Your task to perform on an android device: choose inbox layout in the gmail app Image 0: 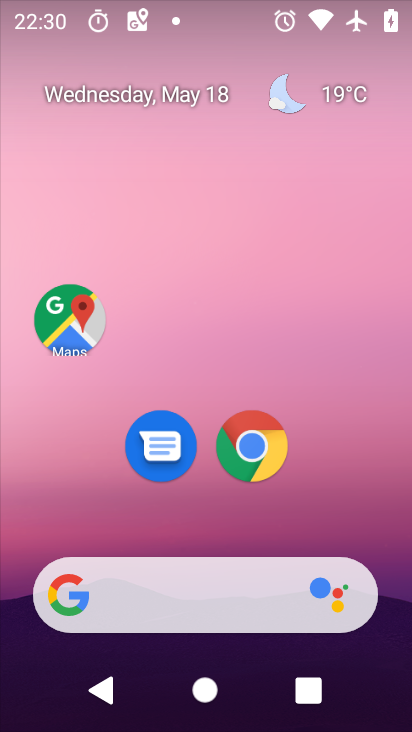
Step 0: drag from (146, 589) to (296, 78)
Your task to perform on an android device: choose inbox layout in the gmail app Image 1: 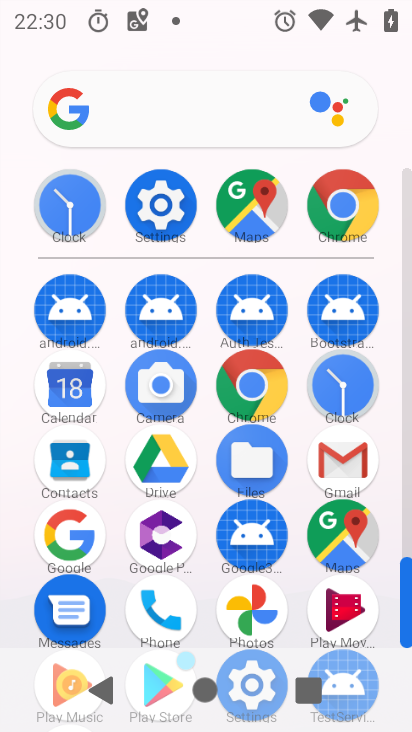
Step 1: click (335, 463)
Your task to perform on an android device: choose inbox layout in the gmail app Image 2: 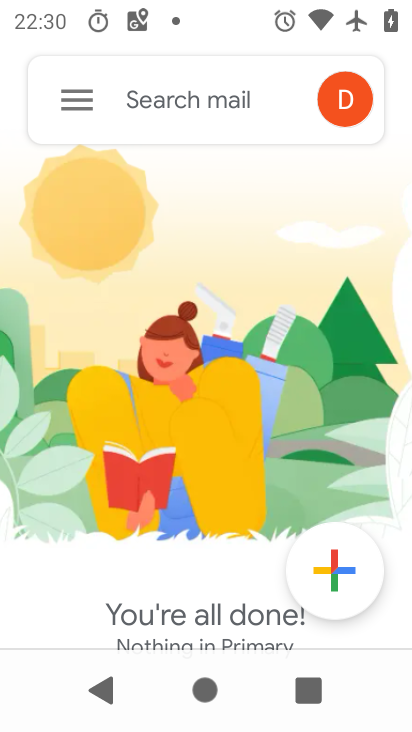
Step 2: click (72, 103)
Your task to perform on an android device: choose inbox layout in the gmail app Image 3: 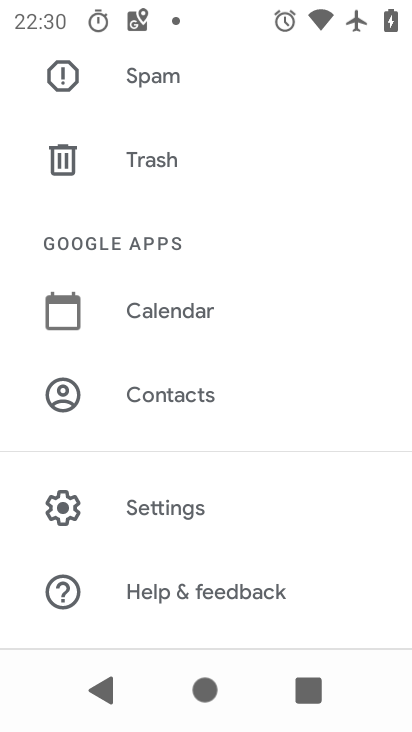
Step 3: click (186, 512)
Your task to perform on an android device: choose inbox layout in the gmail app Image 4: 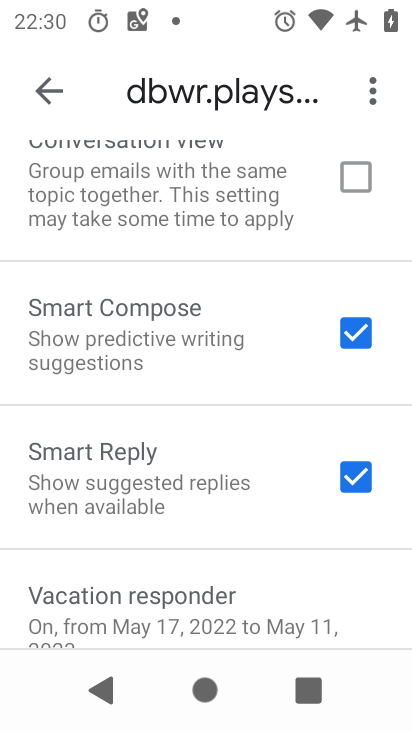
Step 4: drag from (255, 148) to (216, 609)
Your task to perform on an android device: choose inbox layout in the gmail app Image 5: 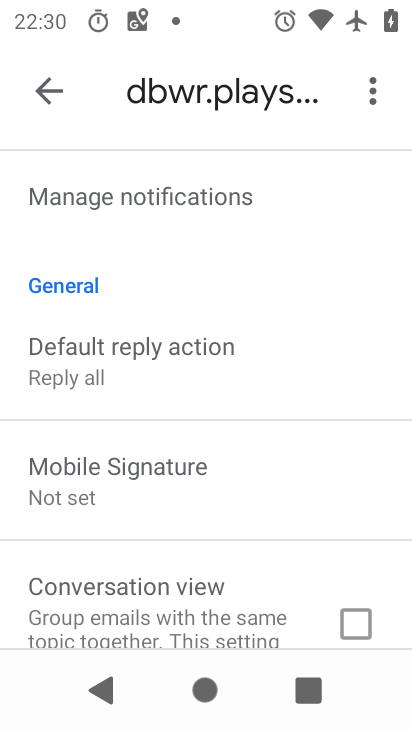
Step 5: drag from (265, 256) to (219, 662)
Your task to perform on an android device: choose inbox layout in the gmail app Image 6: 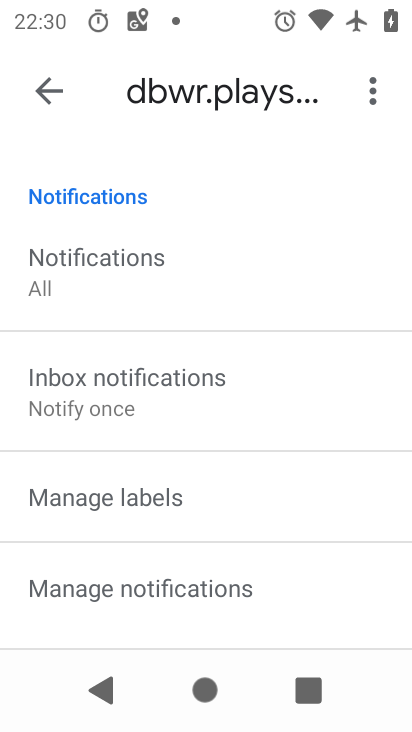
Step 6: drag from (260, 185) to (188, 544)
Your task to perform on an android device: choose inbox layout in the gmail app Image 7: 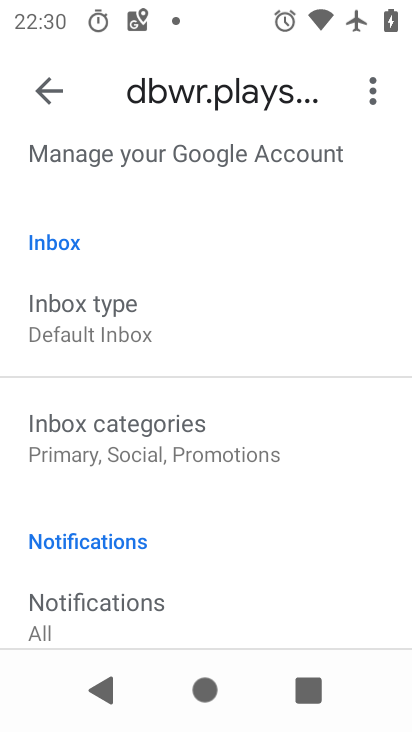
Step 7: click (85, 330)
Your task to perform on an android device: choose inbox layout in the gmail app Image 8: 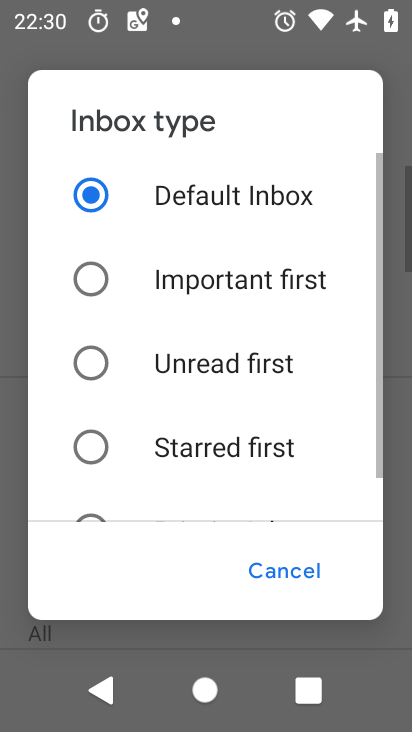
Step 8: click (95, 367)
Your task to perform on an android device: choose inbox layout in the gmail app Image 9: 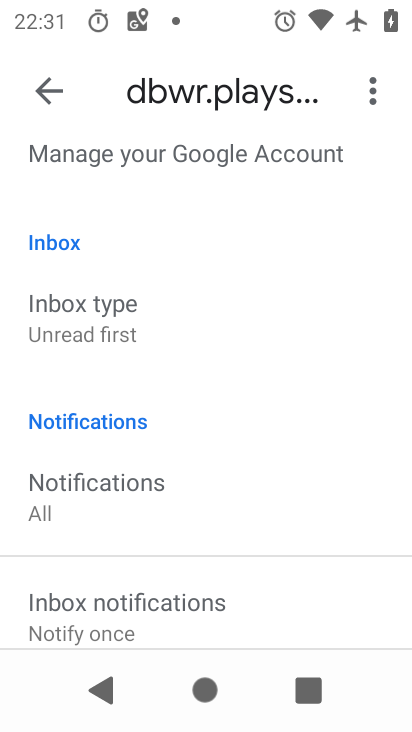
Step 9: task complete